Your task to perform on an android device: change your default location settings in chrome Image 0: 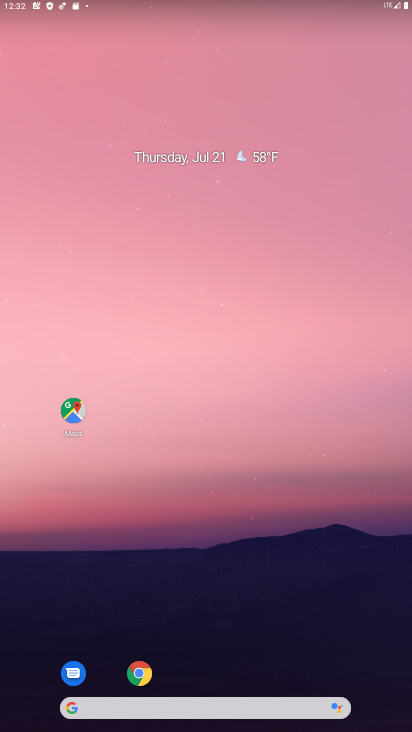
Step 0: drag from (238, 637) to (211, 160)
Your task to perform on an android device: change your default location settings in chrome Image 1: 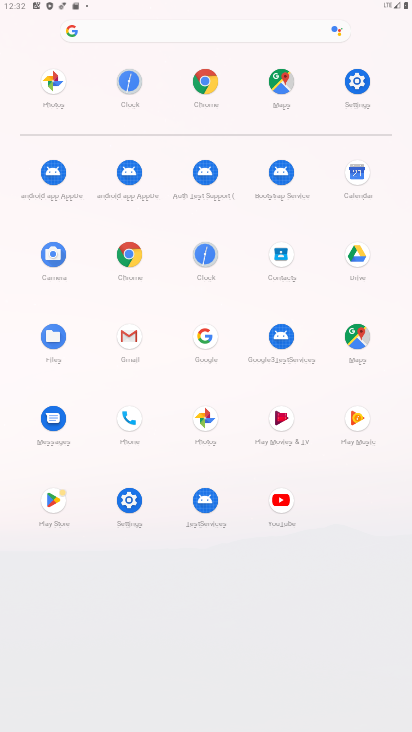
Step 1: click (203, 77)
Your task to perform on an android device: change your default location settings in chrome Image 2: 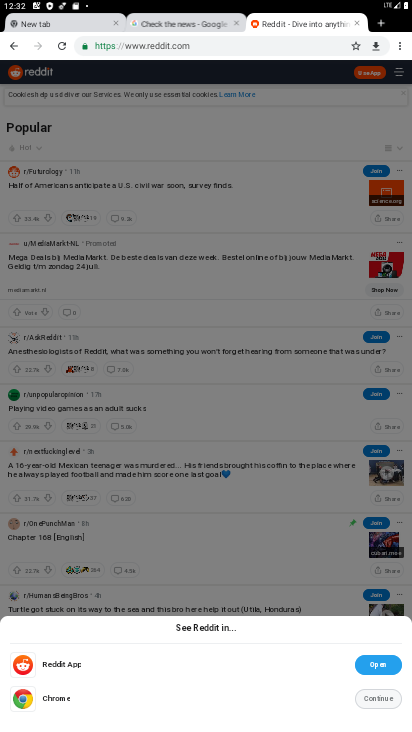
Step 2: click (395, 41)
Your task to perform on an android device: change your default location settings in chrome Image 3: 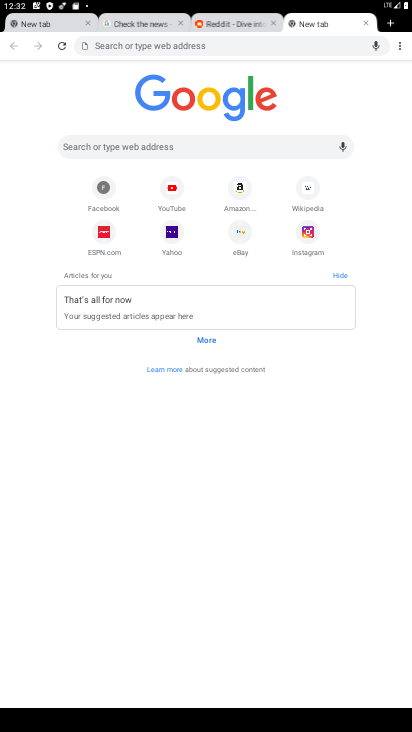
Step 3: click (397, 43)
Your task to perform on an android device: change your default location settings in chrome Image 4: 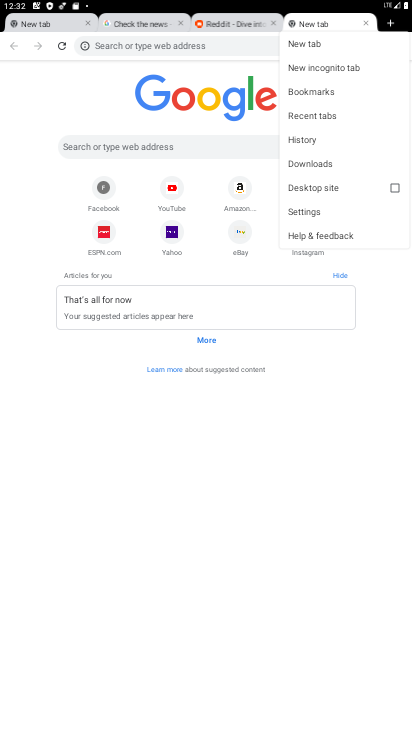
Step 4: click (308, 212)
Your task to perform on an android device: change your default location settings in chrome Image 5: 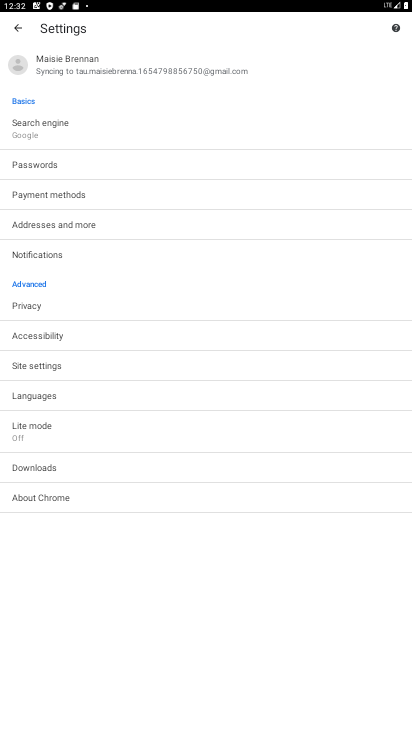
Step 5: click (71, 369)
Your task to perform on an android device: change your default location settings in chrome Image 6: 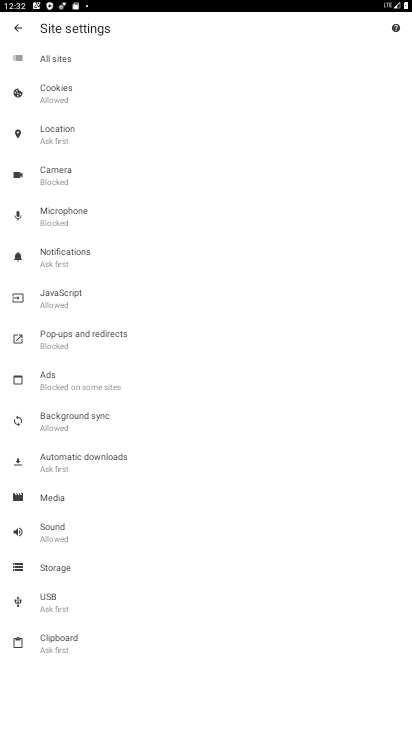
Step 6: click (72, 118)
Your task to perform on an android device: change your default location settings in chrome Image 7: 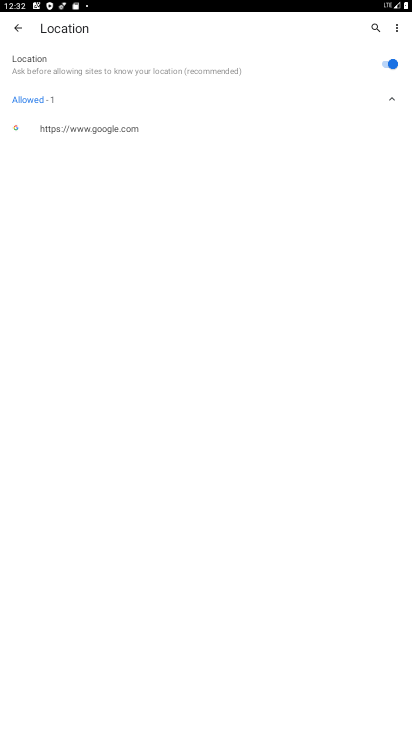
Step 7: click (392, 57)
Your task to perform on an android device: change your default location settings in chrome Image 8: 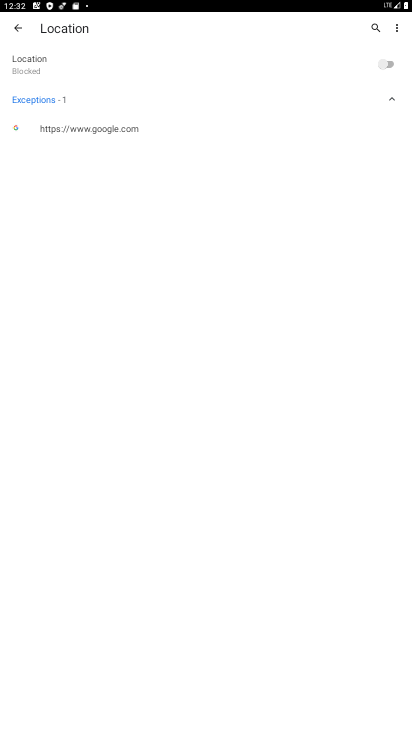
Step 8: task complete